Your task to perform on an android device: change notifications settings Image 0: 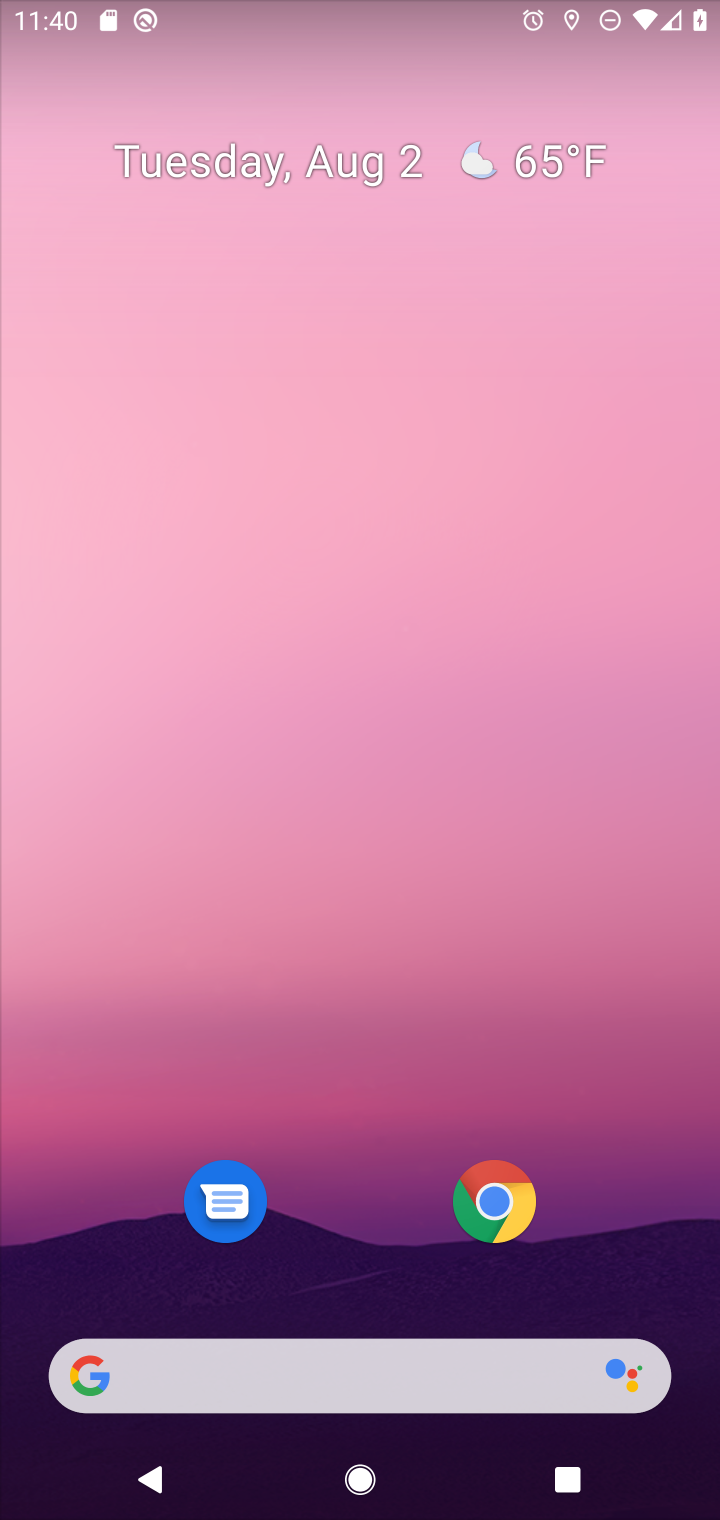
Step 0: press home button
Your task to perform on an android device: change notifications settings Image 1: 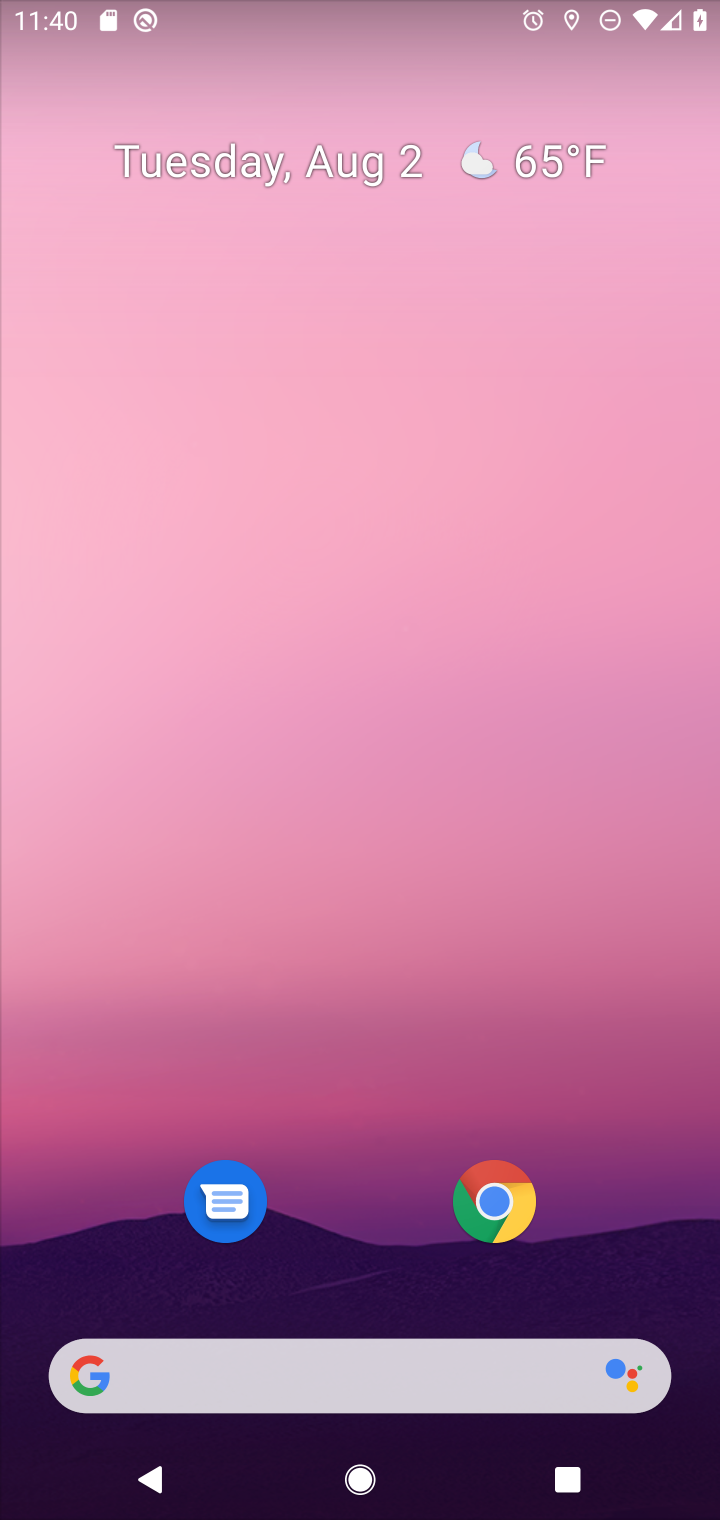
Step 1: drag from (322, 1190) to (433, 14)
Your task to perform on an android device: change notifications settings Image 2: 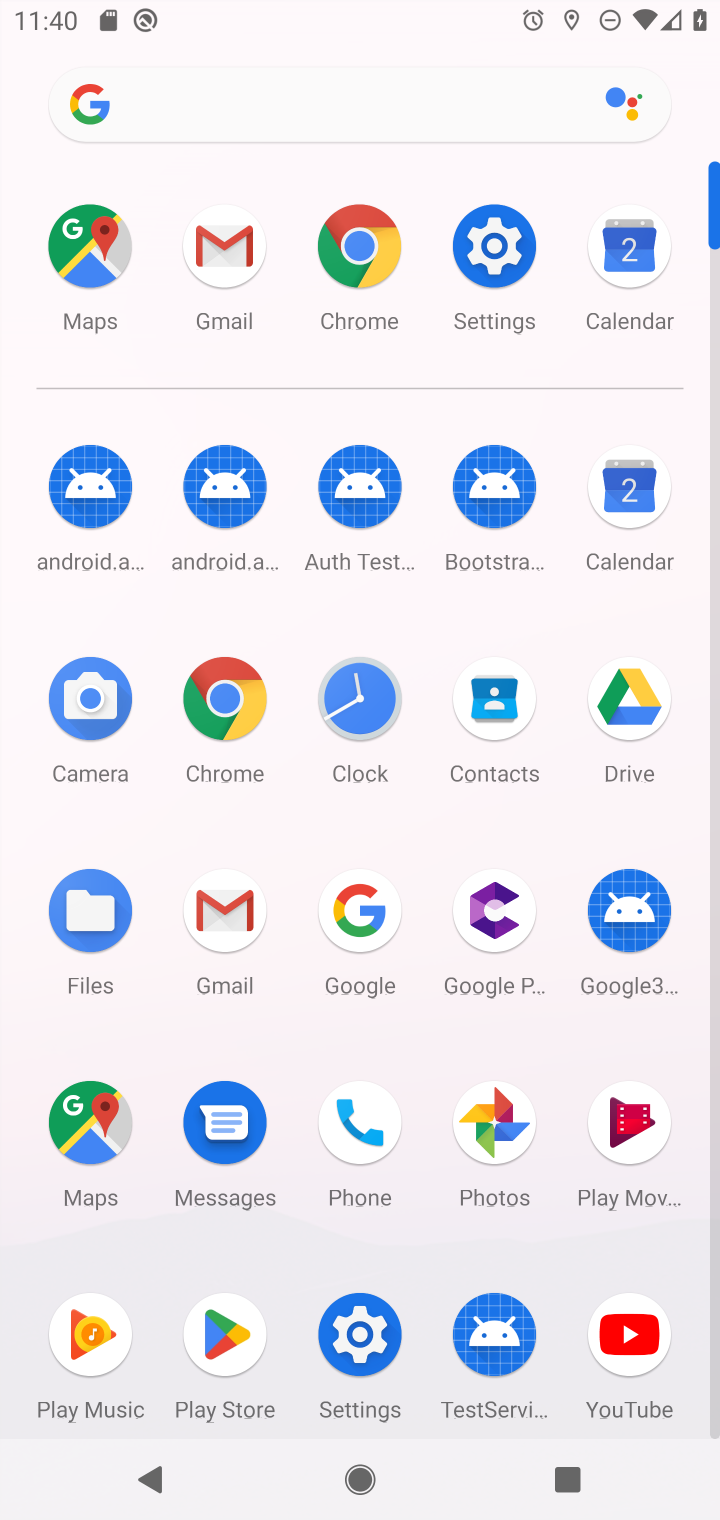
Step 2: click (498, 264)
Your task to perform on an android device: change notifications settings Image 3: 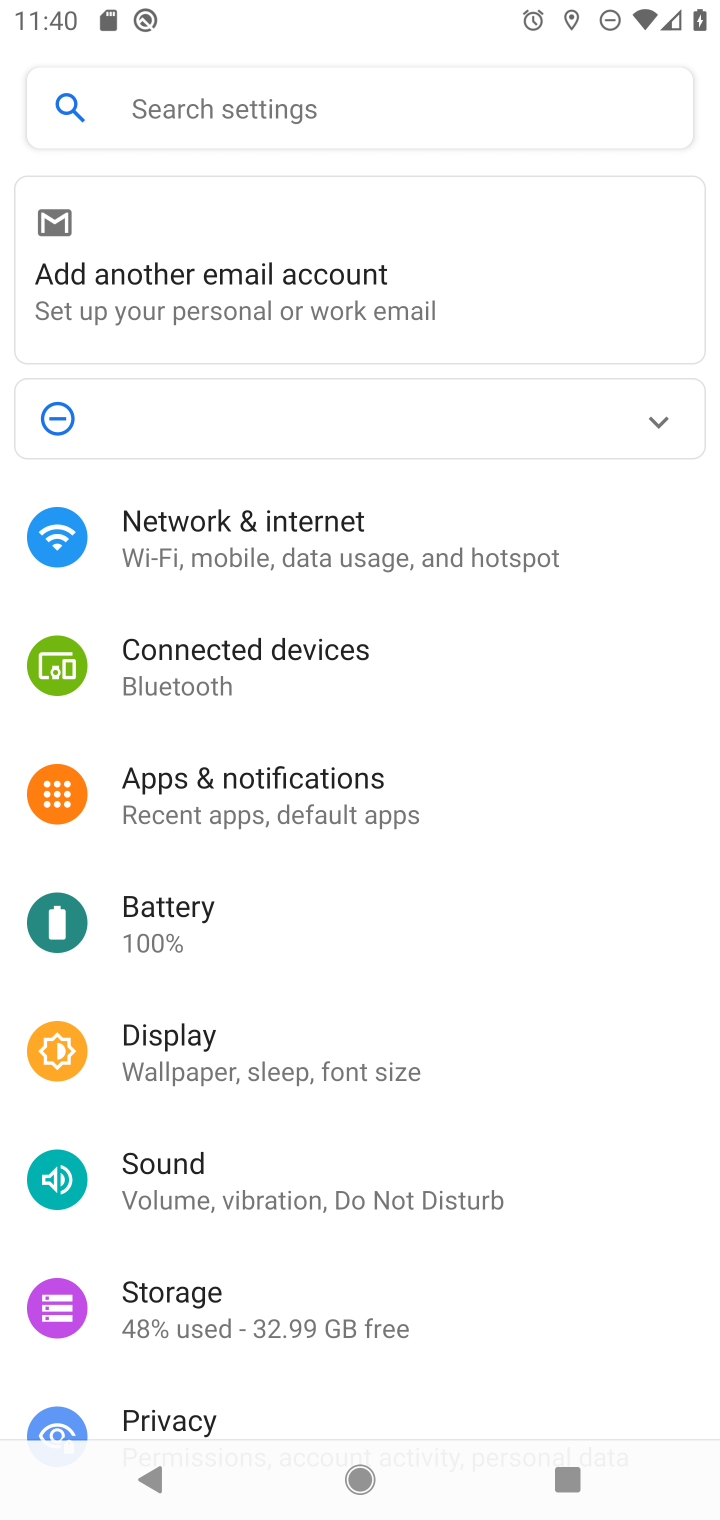
Step 3: drag from (450, 1146) to (441, 85)
Your task to perform on an android device: change notifications settings Image 4: 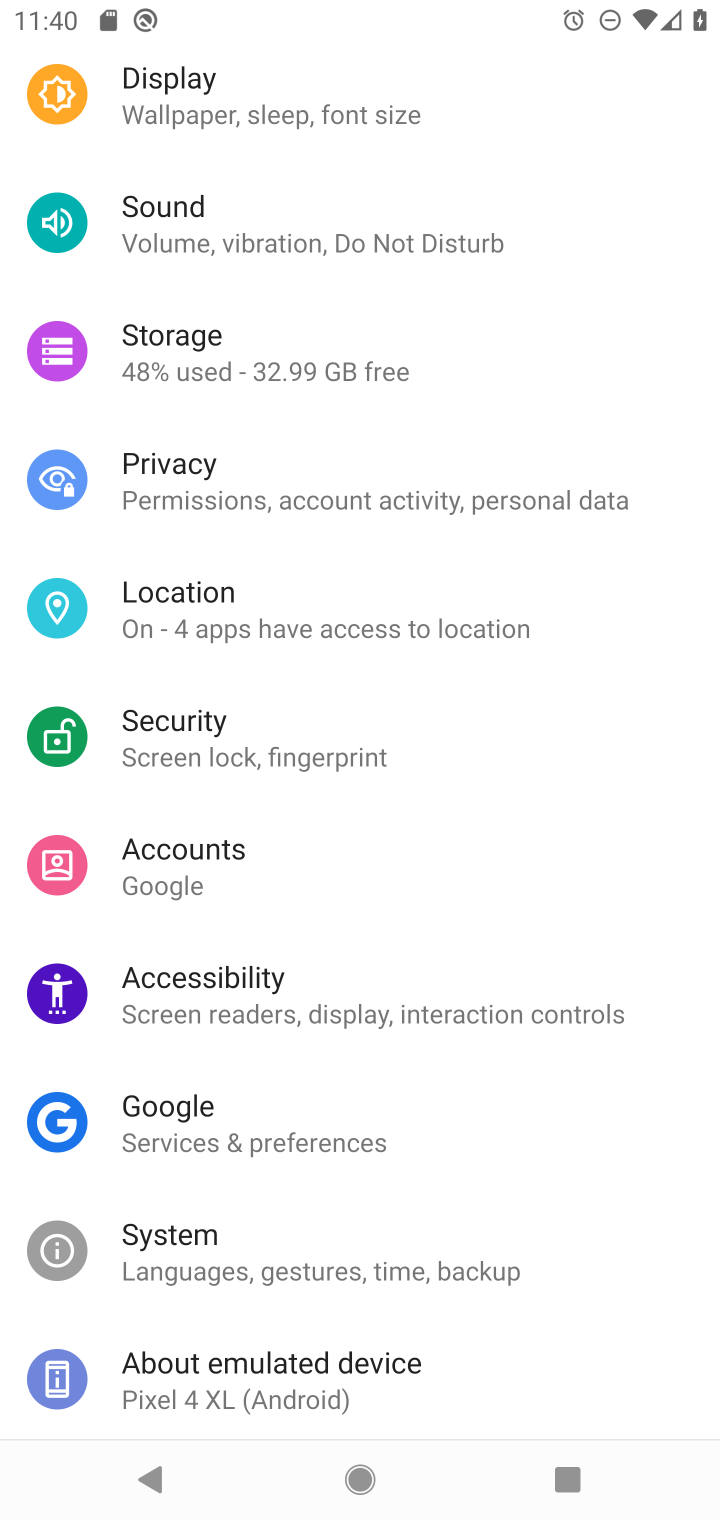
Step 4: drag from (388, 963) to (383, 118)
Your task to perform on an android device: change notifications settings Image 5: 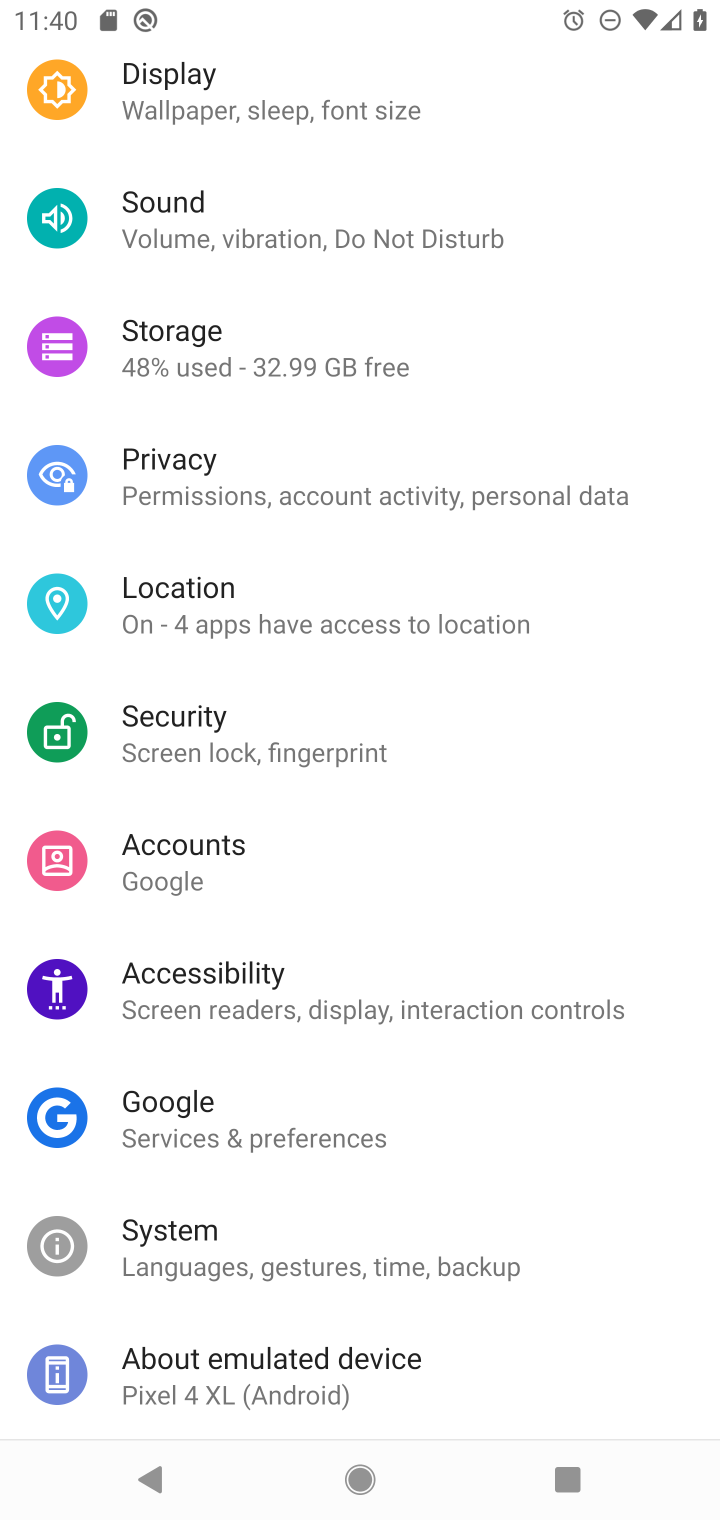
Step 5: drag from (384, 409) to (450, 1238)
Your task to perform on an android device: change notifications settings Image 6: 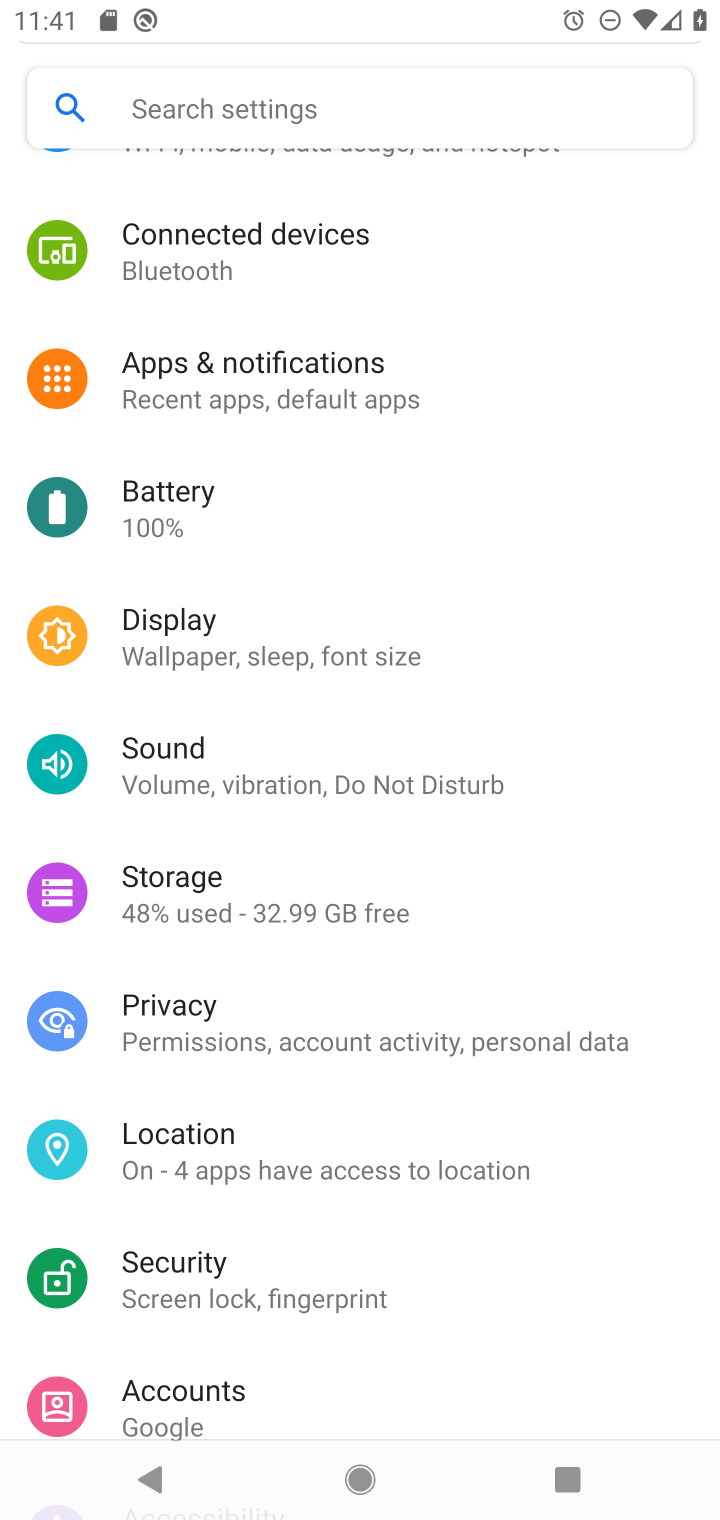
Step 6: click (299, 363)
Your task to perform on an android device: change notifications settings Image 7: 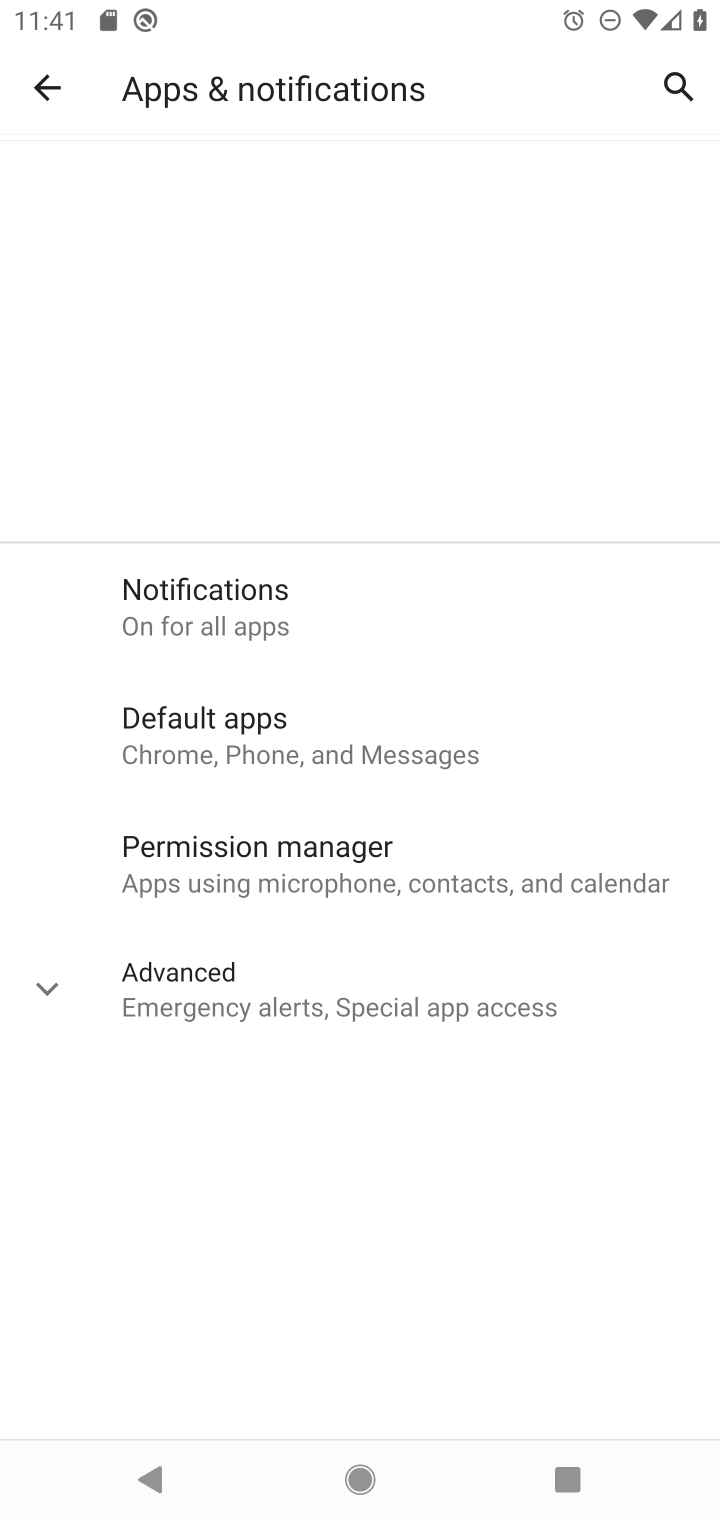
Step 7: click (255, 644)
Your task to perform on an android device: change notifications settings Image 8: 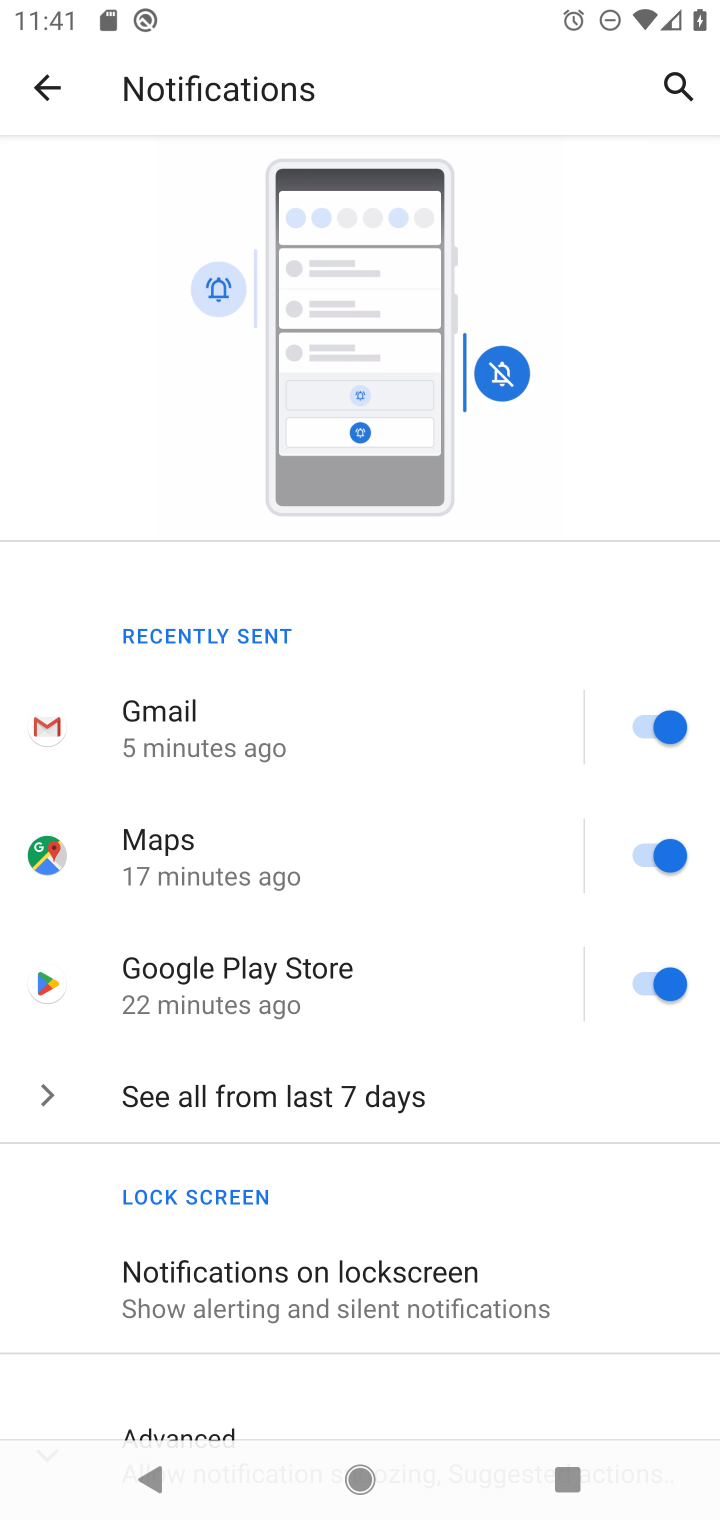
Step 8: task complete